Your task to perform on an android device: turn on priority inbox in the gmail app Image 0: 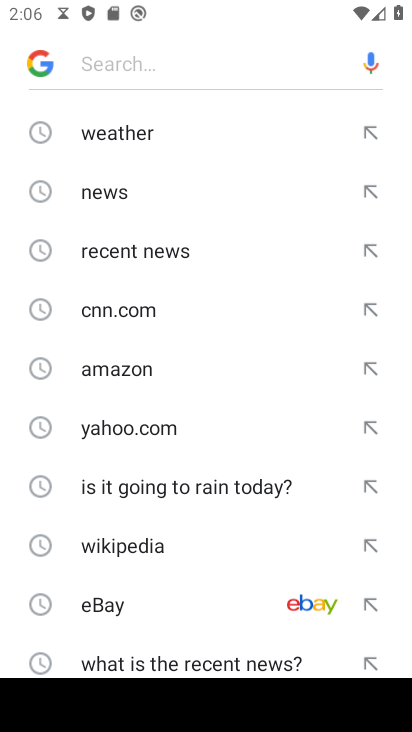
Step 0: press back button
Your task to perform on an android device: turn on priority inbox in the gmail app Image 1: 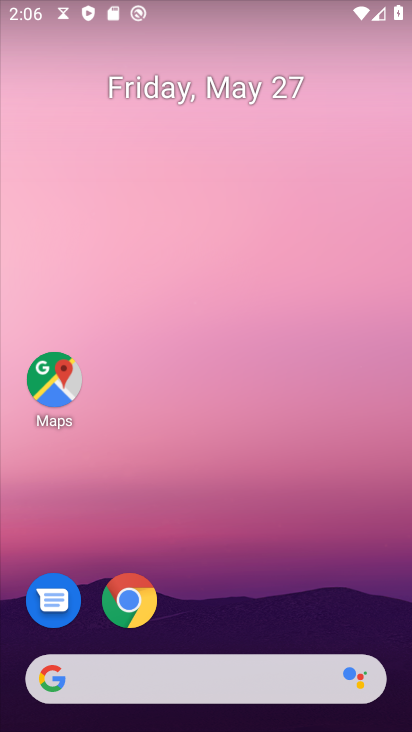
Step 1: drag from (218, 564) to (199, 36)
Your task to perform on an android device: turn on priority inbox in the gmail app Image 2: 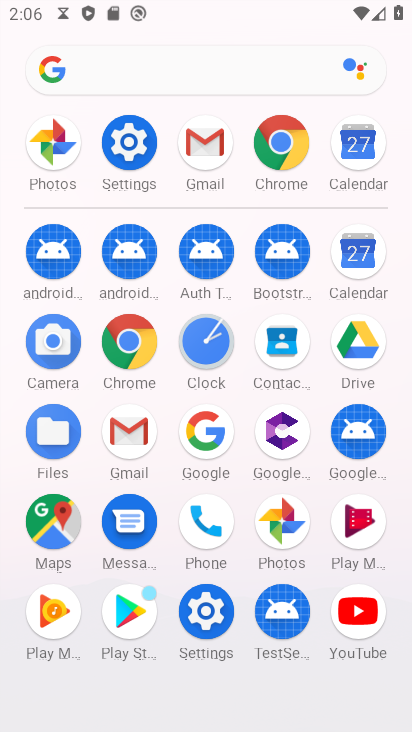
Step 2: drag from (8, 430) to (32, 235)
Your task to perform on an android device: turn on priority inbox in the gmail app Image 3: 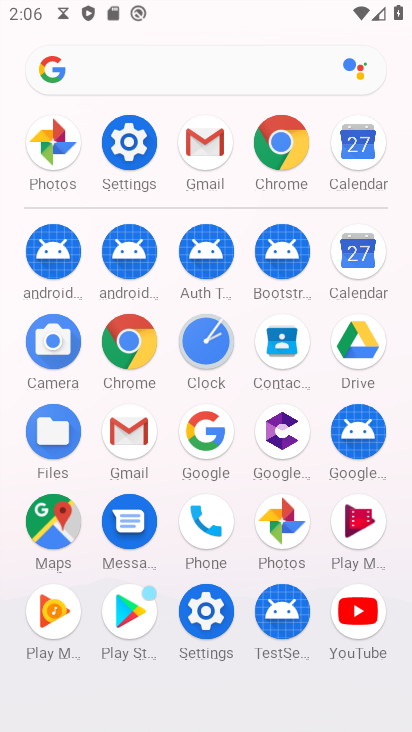
Step 3: click (127, 429)
Your task to perform on an android device: turn on priority inbox in the gmail app Image 4: 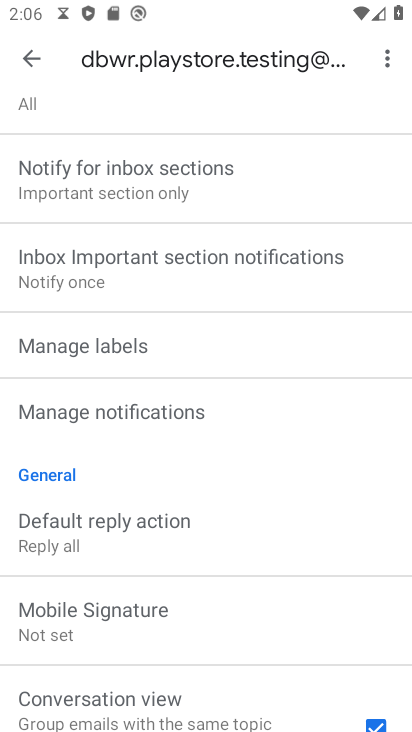
Step 4: click (22, 54)
Your task to perform on an android device: turn on priority inbox in the gmail app Image 5: 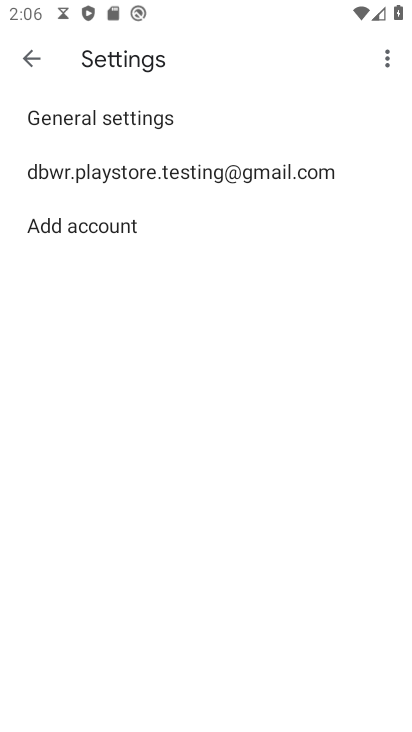
Step 5: click (27, 55)
Your task to perform on an android device: turn on priority inbox in the gmail app Image 6: 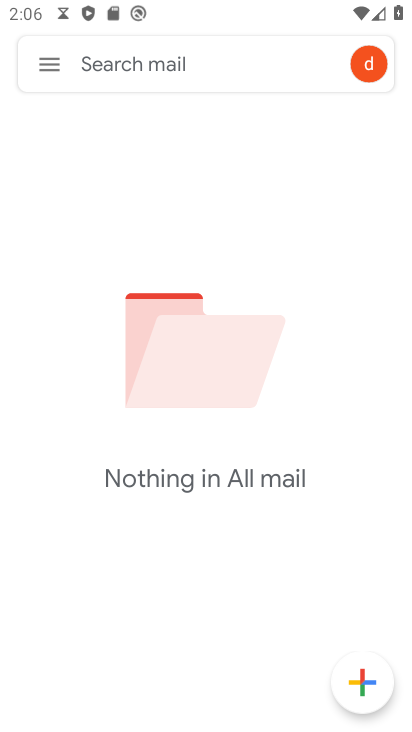
Step 6: click (53, 66)
Your task to perform on an android device: turn on priority inbox in the gmail app Image 7: 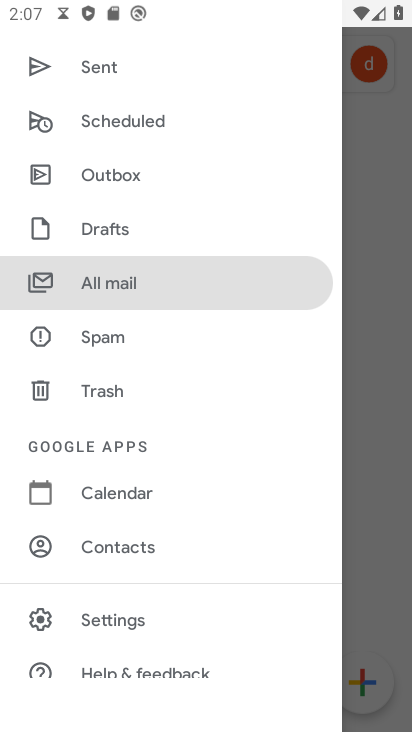
Step 7: click (128, 610)
Your task to perform on an android device: turn on priority inbox in the gmail app Image 8: 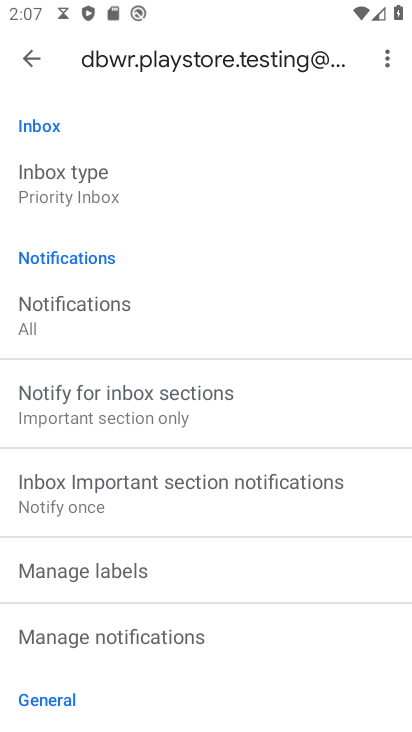
Step 8: task complete